Your task to perform on an android device: Open Google Chrome Image 0: 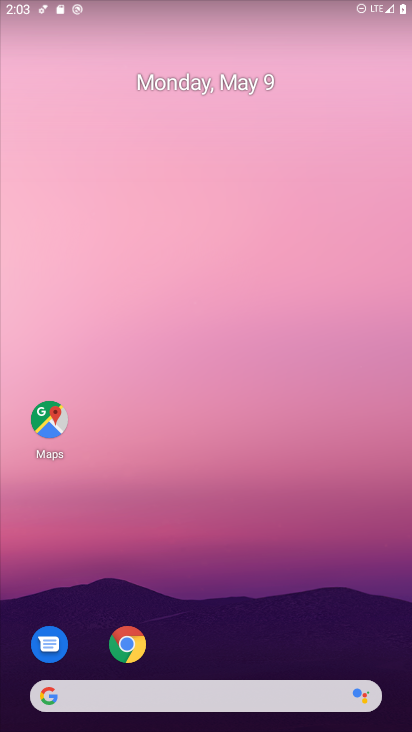
Step 0: drag from (274, 639) to (274, 68)
Your task to perform on an android device: Open Google Chrome Image 1: 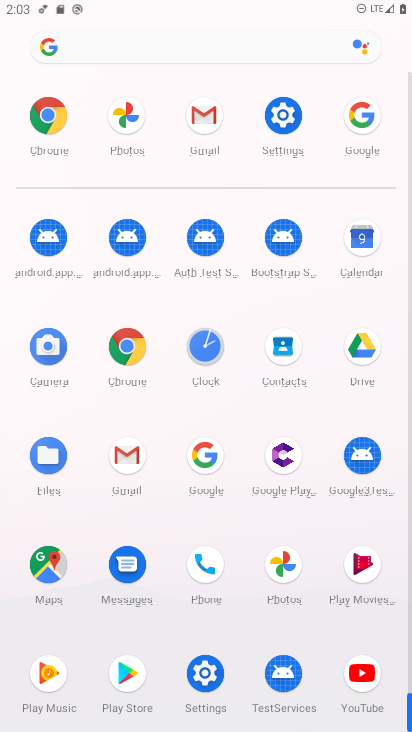
Step 1: click (44, 150)
Your task to perform on an android device: Open Google Chrome Image 2: 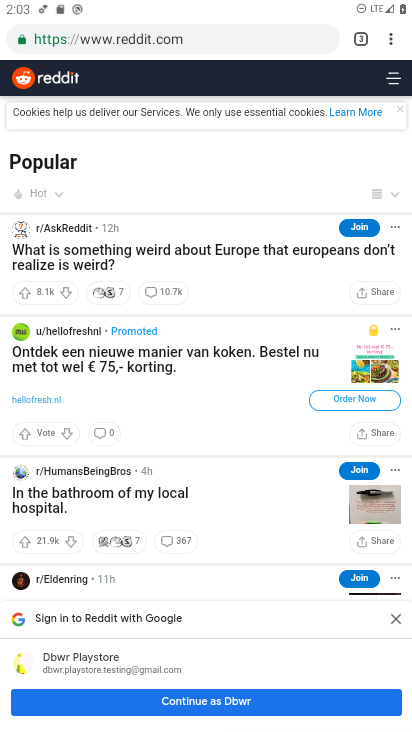
Step 2: task complete